Your task to perform on an android device: check google app version Image 0: 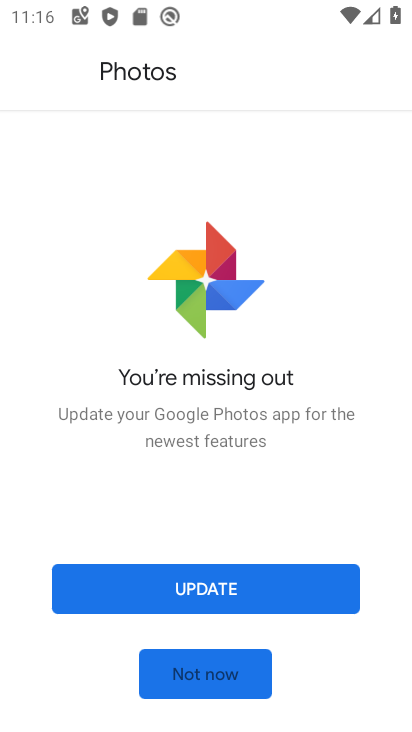
Step 0: press home button
Your task to perform on an android device: check google app version Image 1: 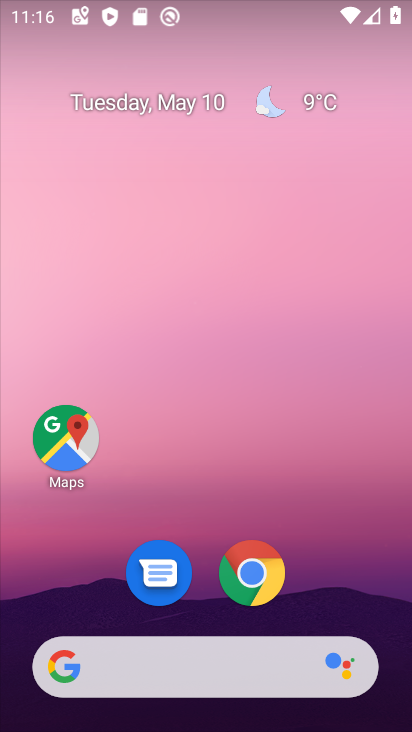
Step 1: drag from (225, 719) to (225, 185)
Your task to perform on an android device: check google app version Image 2: 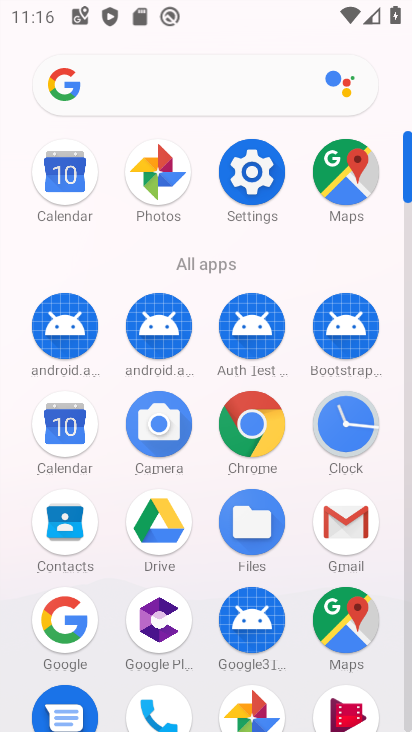
Step 2: click (65, 609)
Your task to perform on an android device: check google app version Image 3: 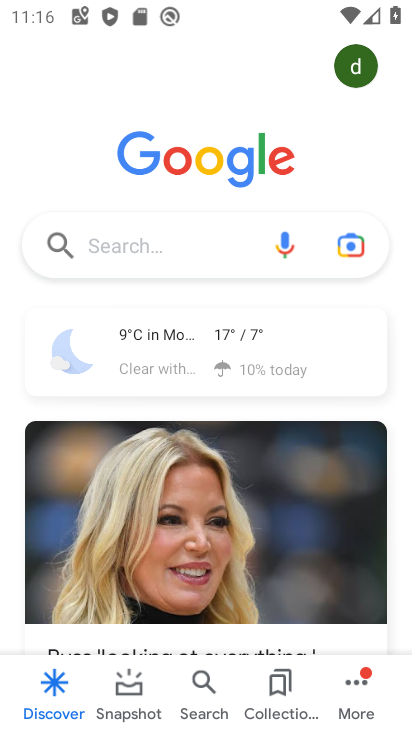
Step 3: click (356, 681)
Your task to perform on an android device: check google app version Image 4: 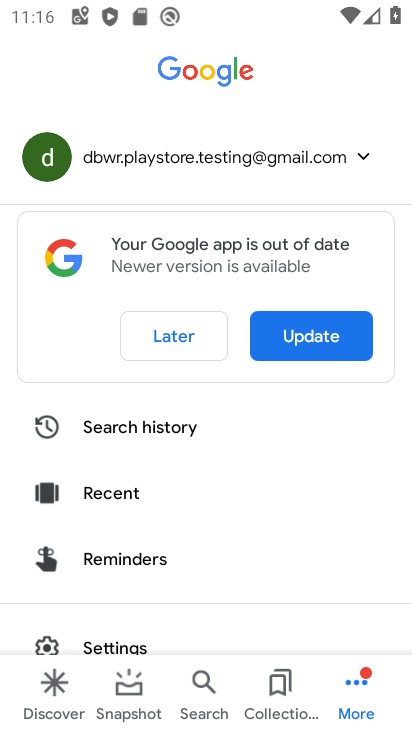
Step 4: drag from (226, 623) to (226, 311)
Your task to perform on an android device: check google app version Image 5: 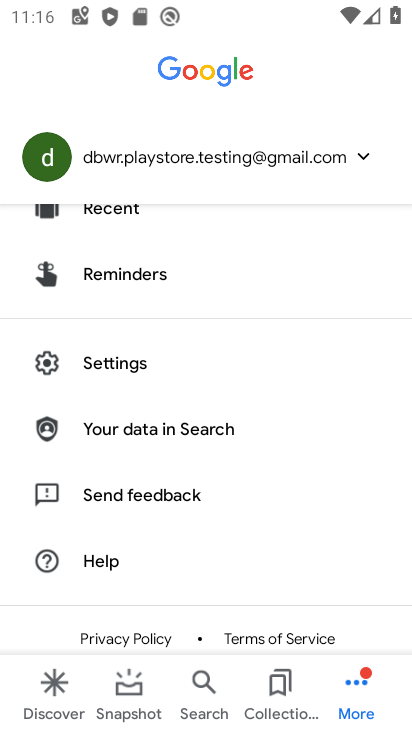
Step 5: click (113, 359)
Your task to perform on an android device: check google app version Image 6: 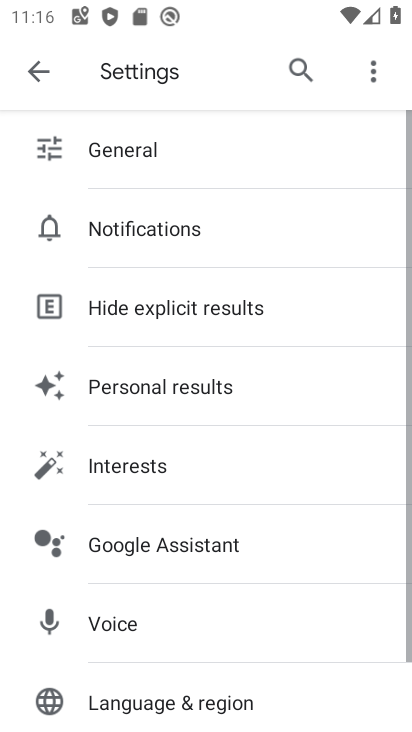
Step 6: drag from (202, 671) to (207, 294)
Your task to perform on an android device: check google app version Image 7: 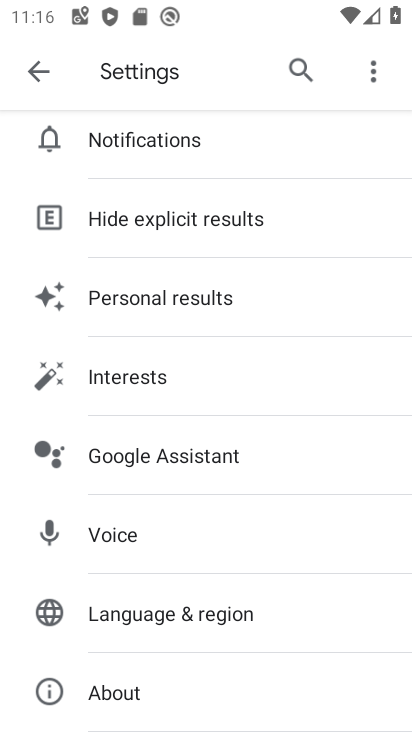
Step 7: click (129, 686)
Your task to perform on an android device: check google app version Image 8: 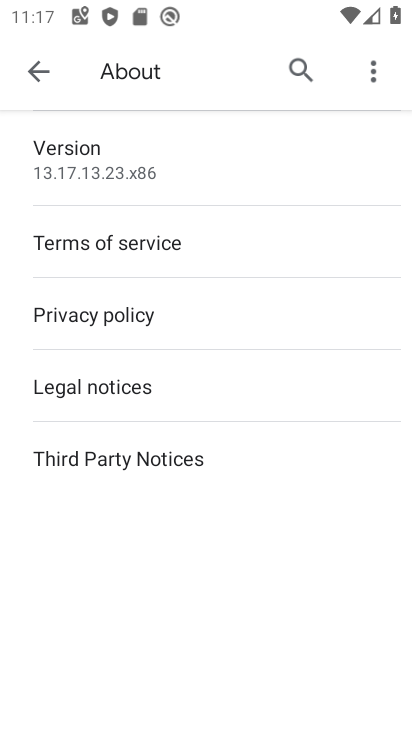
Step 8: task complete